Your task to perform on an android device: open the mobile data screen to see how much data has been used Image 0: 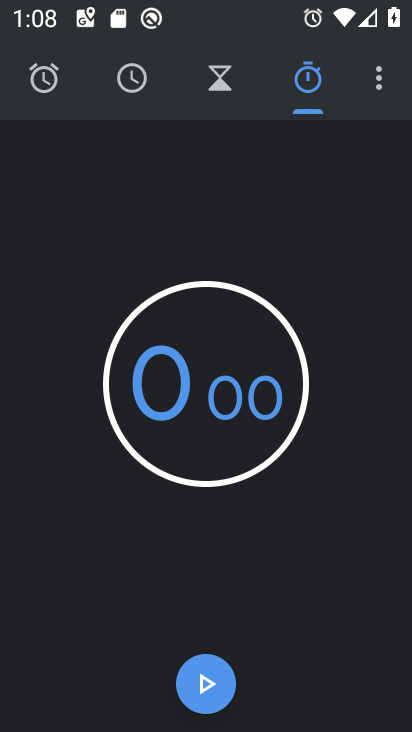
Step 0: press home button
Your task to perform on an android device: open the mobile data screen to see how much data has been used Image 1: 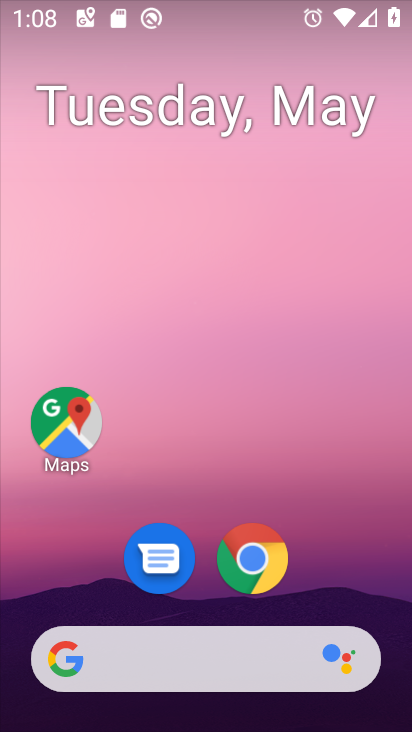
Step 1: drag from (339, 565) to (250, 214)
Your task to perform on an android device: open the mobile data screen to see how much data has been used Image 2: 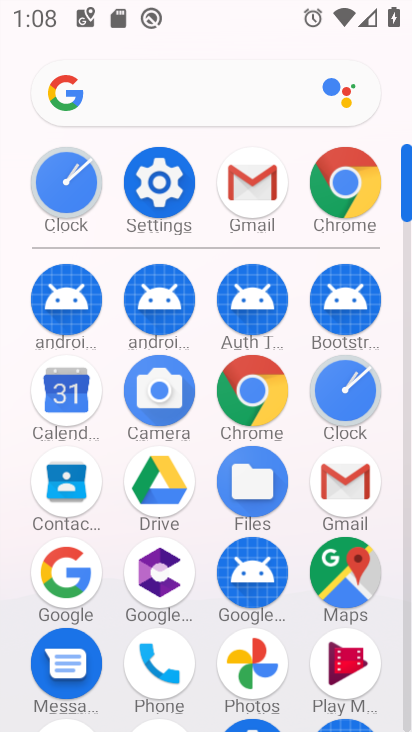
Step 2: click (142, 207)
Your task to perform on an android device: open the mobile data screen to see how much data has been used Image 3: 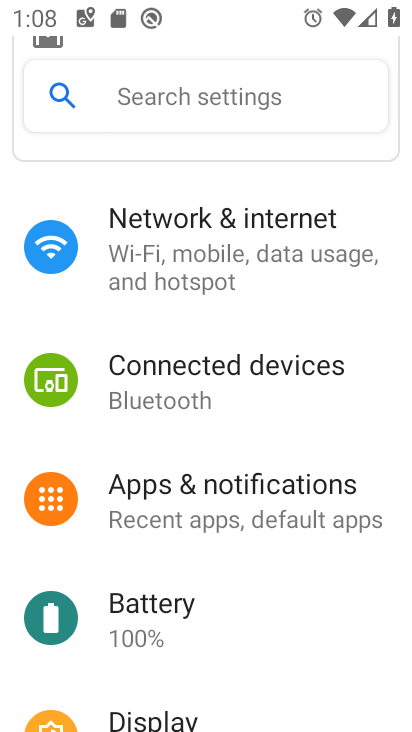
Step 3: click (195, 238)
Your task to perform on an android device: open the mobile data screen to see how much data has been used Image 4: 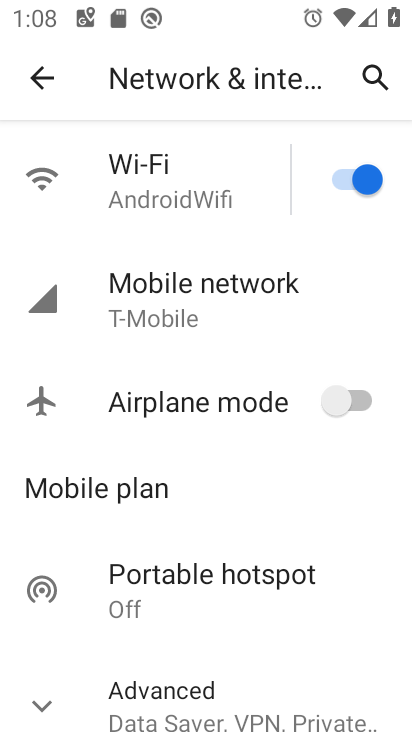
Step 4: click (205, 308)
Your task to perform on an android device: open the mobile data screen to see how much data has been used Image 5: 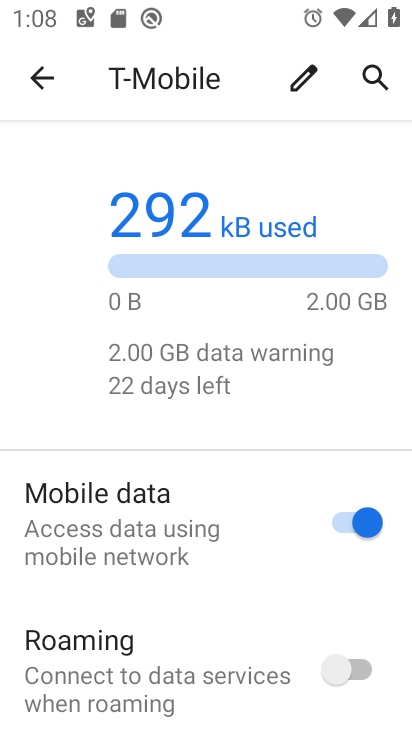
Step 5: task complete